Your task to perform on an android device: add a contact Image 0: 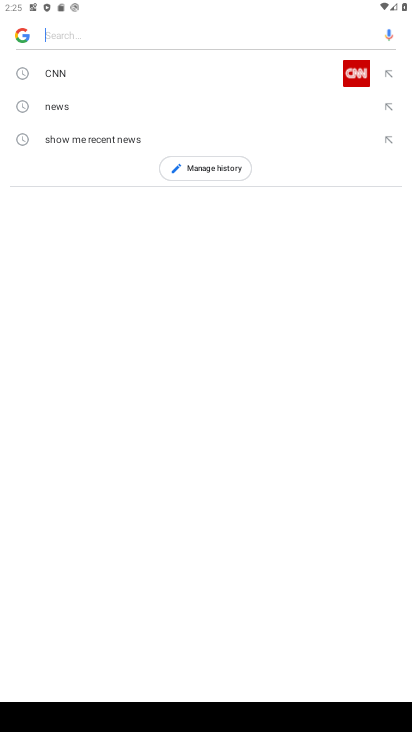
Step 0: press home button
Your task to perform on an android device: add a contact Image 1: 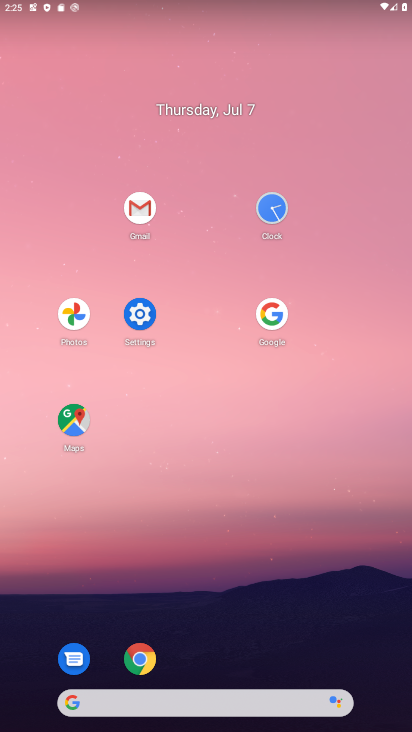
Step 1: drag from (280, 581) to (280, 113)
Your task to perform on an android device: add a contact Image 2: 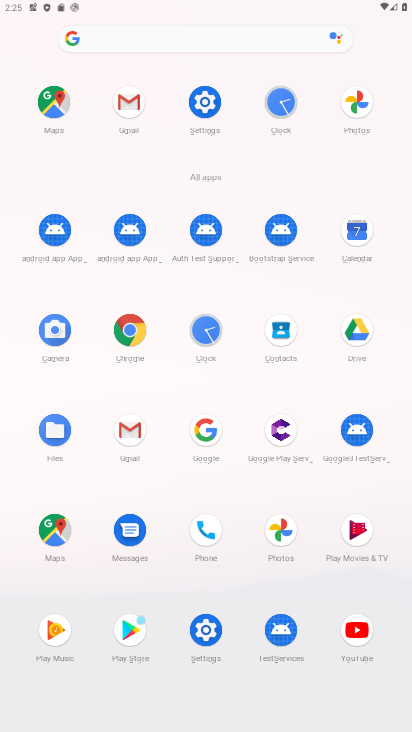
Step 2: click (291, 325)
Your task to perform on an android device: add a contact Image 3: 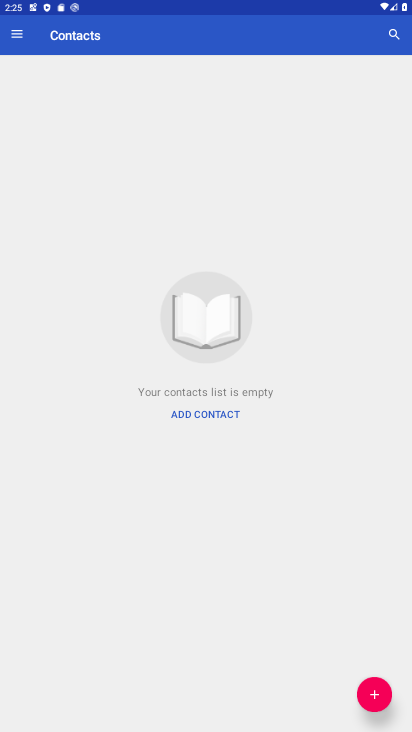
Step 3: click (387, 690)
Your task to perform on an android device: add a contact Image 4: 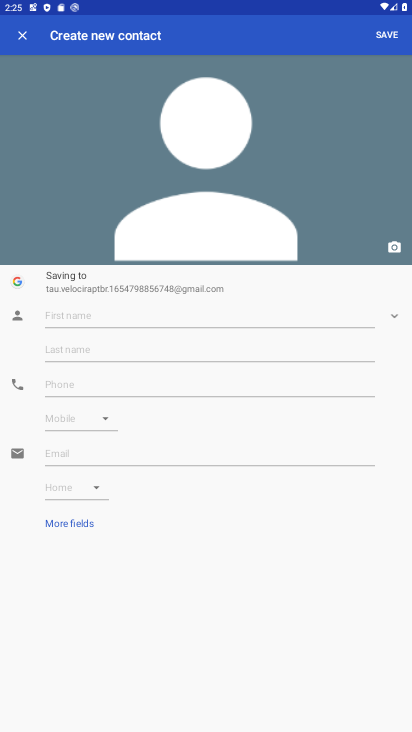
Step 4: click (148, 316)
Your task to perform on an android device: add a contact Image 5: 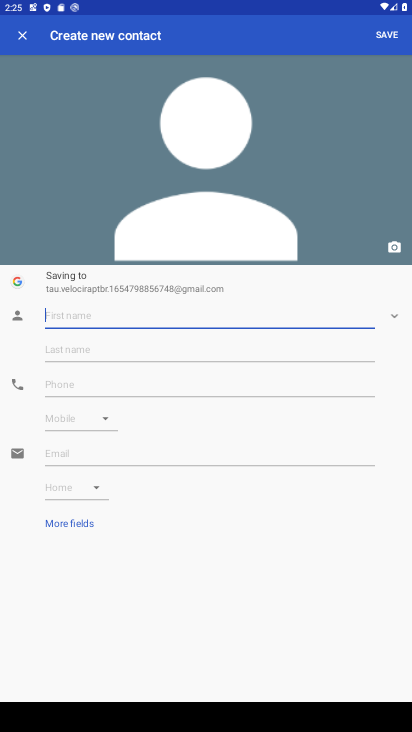
Step 5: type "ppppiu"
Your task to perform on an android device: add a contact Image 6: 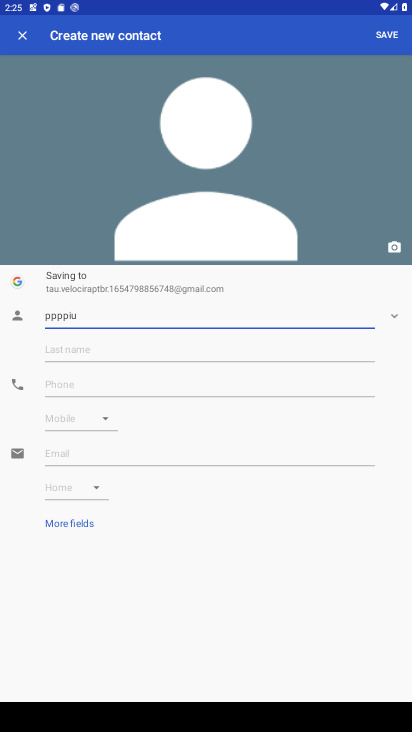
Step 6: click (105, 390)
Your task to perform on an android device: add a contact Image 7: 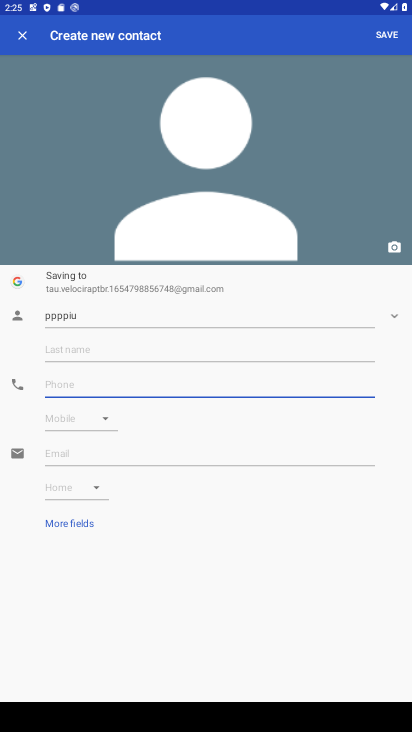
Step 7: type "9988770909"
Your task to perform on an android device: add a contact Image 8: 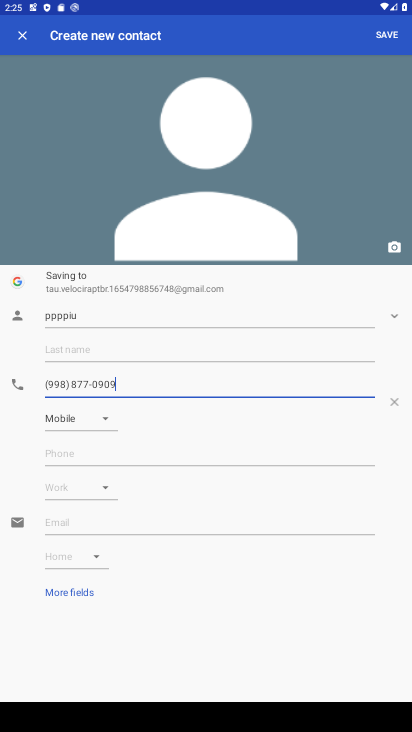
Step 8: click (384, 39)
Your task to perform on an android device: add a contact Image 9: 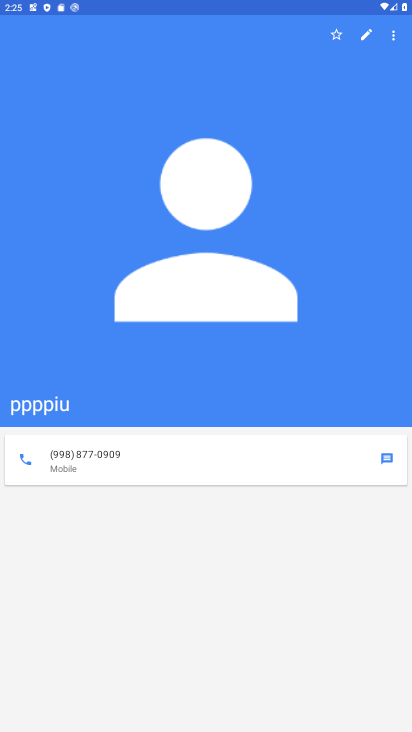
Step 9: task complete